Your task to perform on an android device: change notifications settings Image 0: 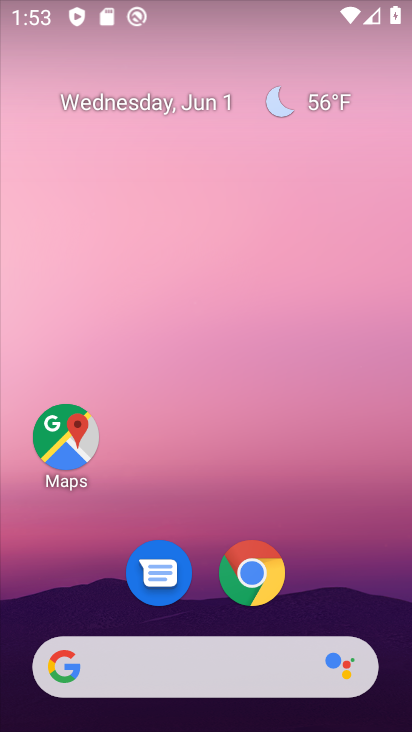
Step 0: drag from (358, 33) to (14, 563)
Your task to perform on an android device: change notifications settings Image 1: 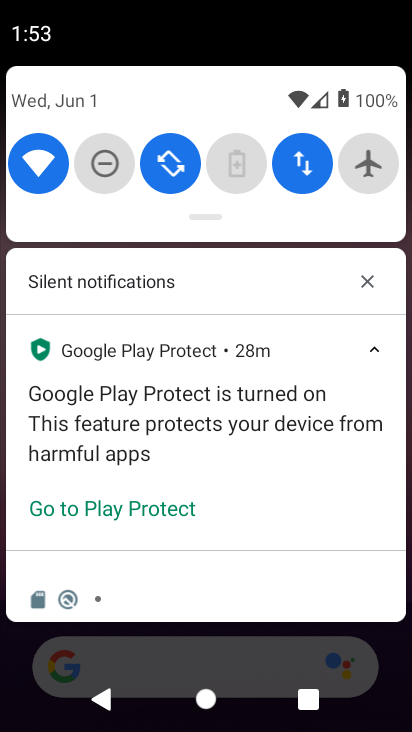
Step 1: drag from (199, 605) to (309, 115)
Your task to perform on an android device: change notifications settings Image 2: 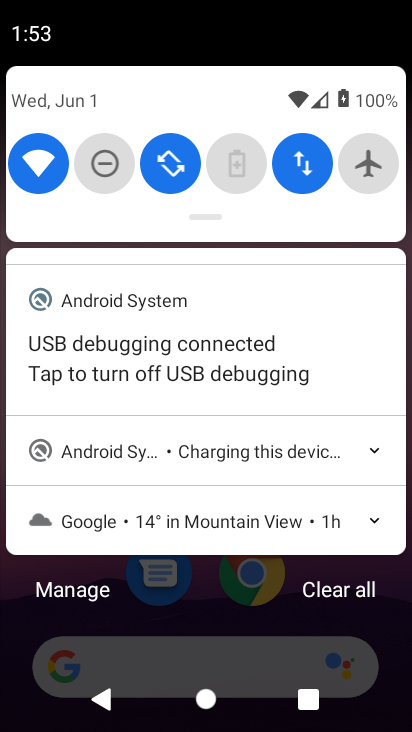
Step 2: drag from (213, 580) to (331, 132)
Your task to perform on an android device: change notifications settings Image 3: 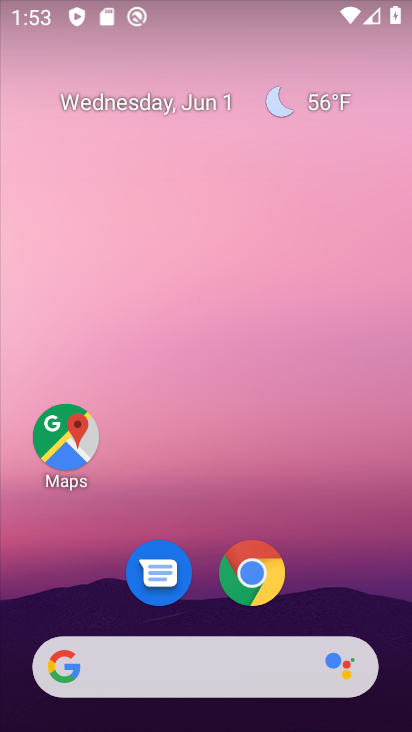
Step 3: drag from (220, 606) to (292, 95)
Your task to perform on an android device: change notifications settings Image 4: 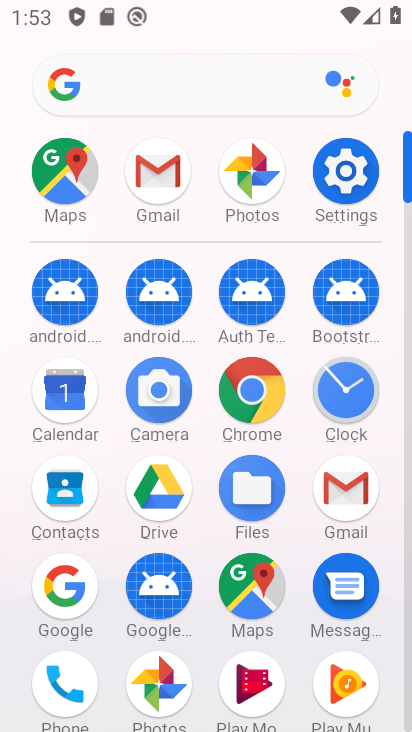
Step 4: click (346, 171)
Your task to perform on an android device: change notifications settings Image 5: 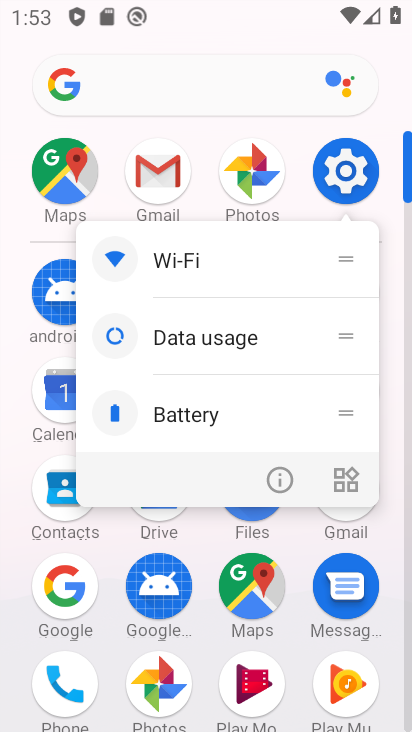
Step 5: click (270, 474)
Your task to perform on an android device: change notifications settings Image 6: 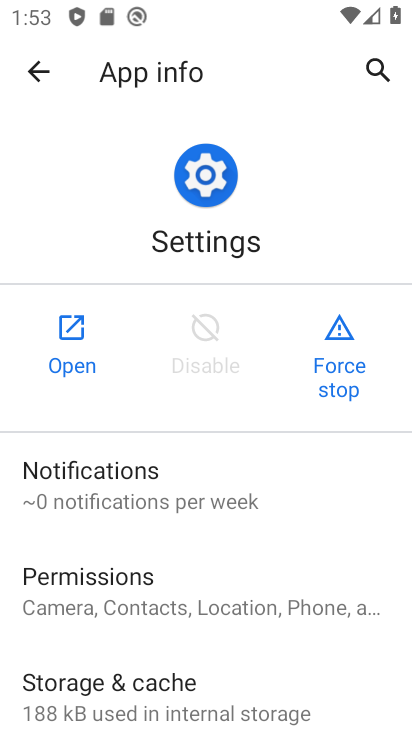
Step 6: click (58, 358)
Your task to perform on an android device: change notifications settings Image 7: 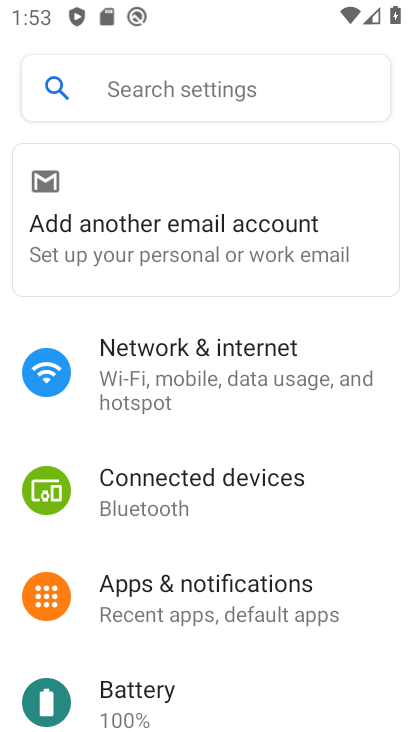
Step 7: click (160, 597)
Your task to perform on an android device: change notifications settings Image 8: 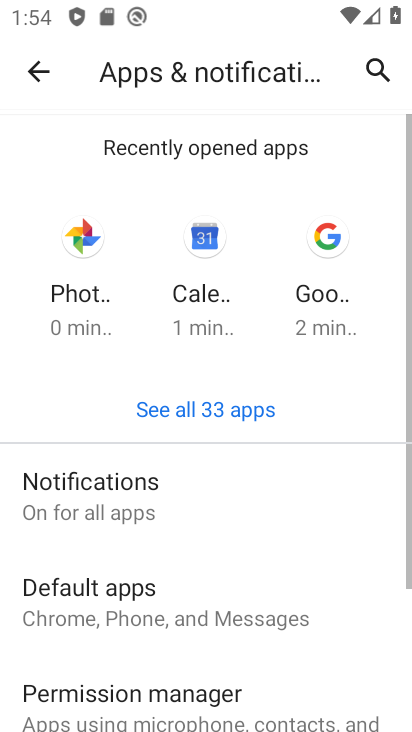
Step 8: drag from (222, 610) to (258, 278)
Your task to perform on an android device: change notifications settings Image 9: 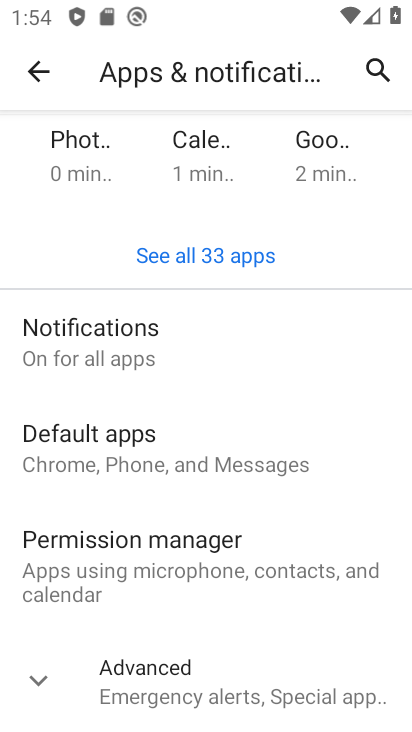
Step 9: click (148, 347)
Your task to perform on an android device: change notifications settings Image 10: 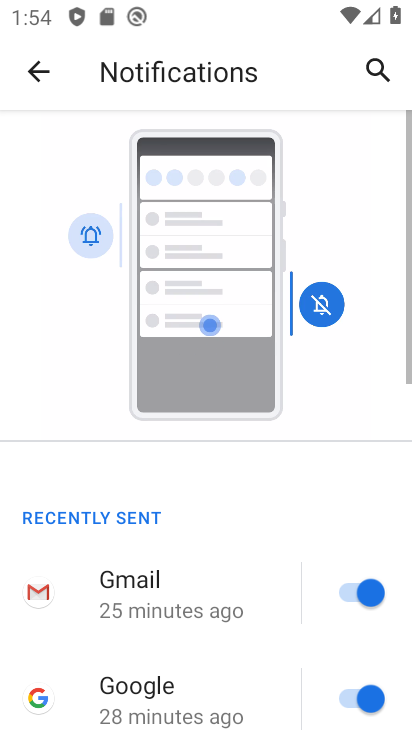
Step 10: drag from (195, 532) to (310, 72)
Your task to perform on an android device: change notifications settings Image 11: 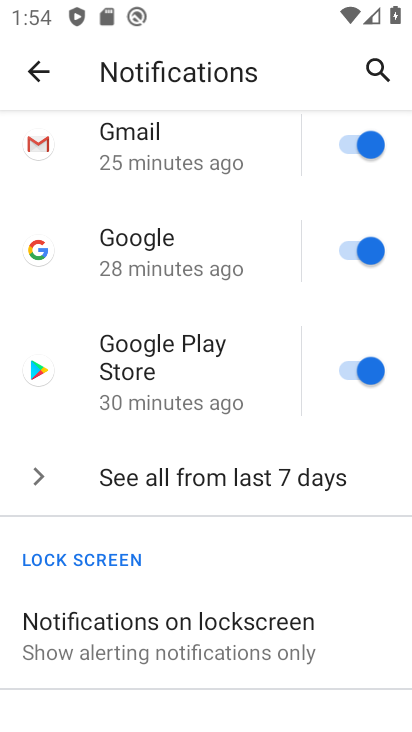
Step 11: drag from (202, 559) to (289, 93)
Your task to perform on an android device: change notifications settings Image 12: 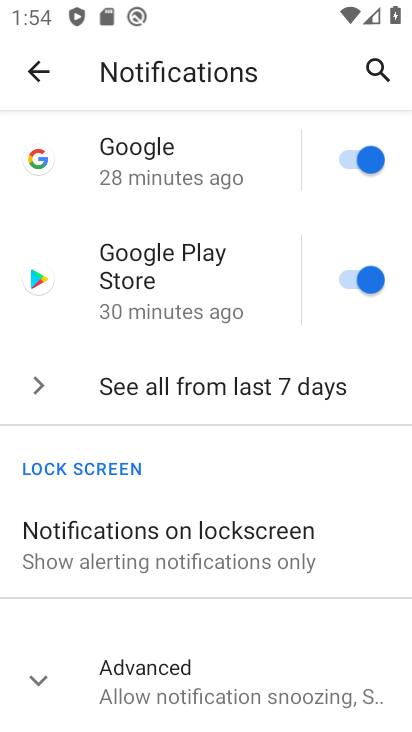
Step 12: click (193, 648)
Your task to perform on an android device: change notifications settings Image 13: 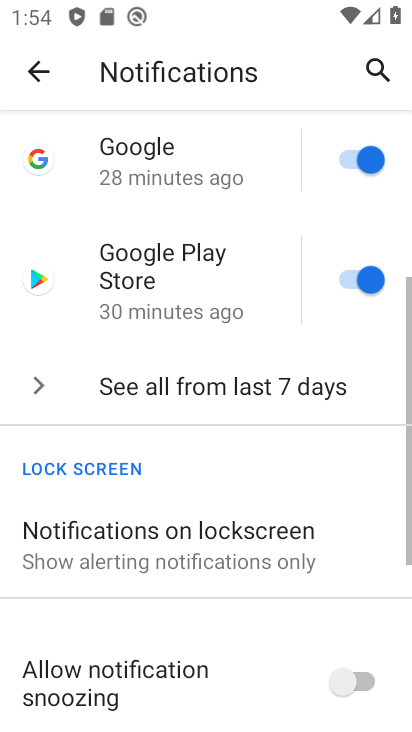
Step 13: drag from (223, 661) to (326, 4)
Your task to perform on an android device: change notifications settings Image 14: 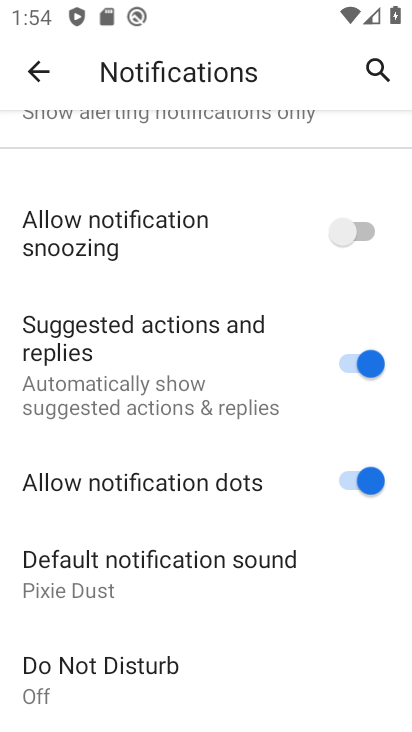
Step 14: drag from (239, 239) to (260, 377)
Your task to perform on an android device: change notifications settings Image 15: 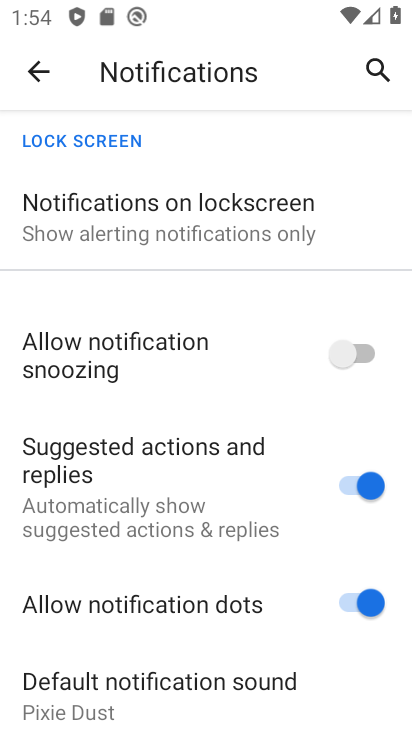
Step 15: click (341, 354)
Your task to perform on an android device: change notifications settings Image 16: 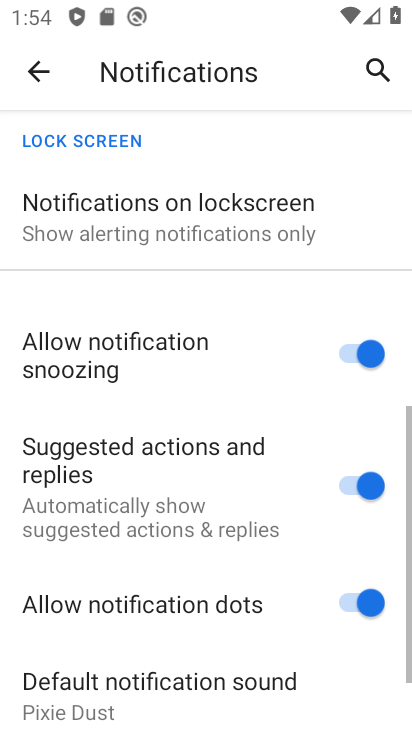
Step 16: task complete